Your task to perform on an android device: Go to settings Image 0: 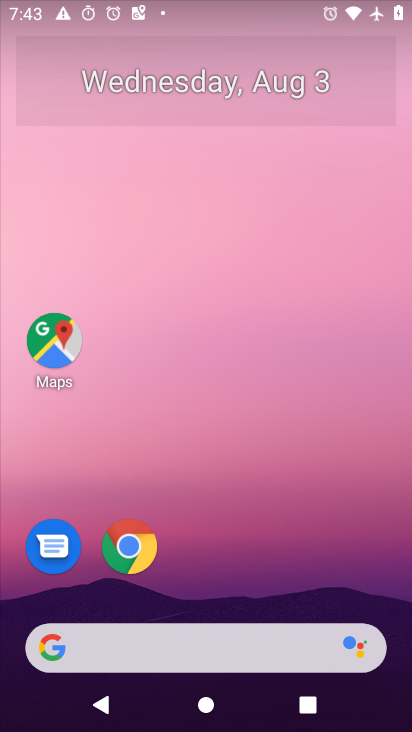
Step 0: drag from (237, 501) to (243, 149)
Your task to perform on an android device: Go to settings Image 1: 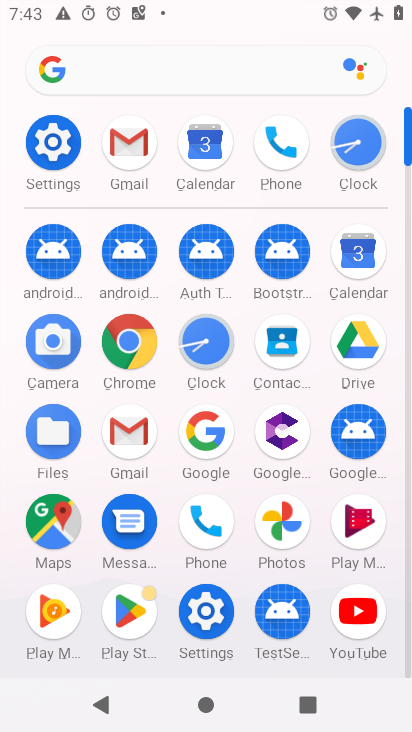
Step 1: click (53, 145)
Your task to perform on an android device: Go to settings Image 2: 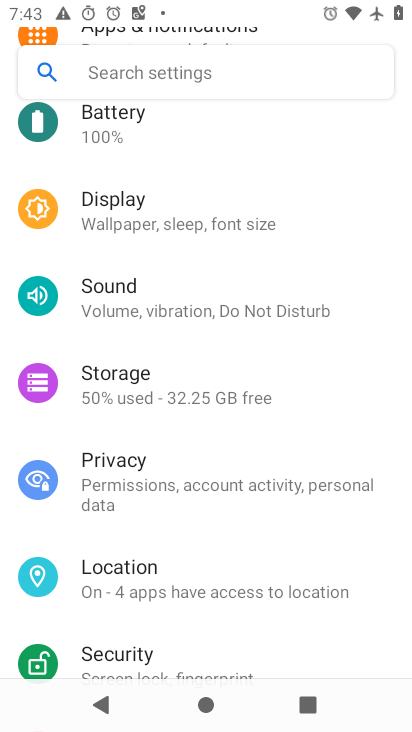
Step 2: task complete